Your task to perform on an android device: turn on the 12-hour format for clock Image 0: 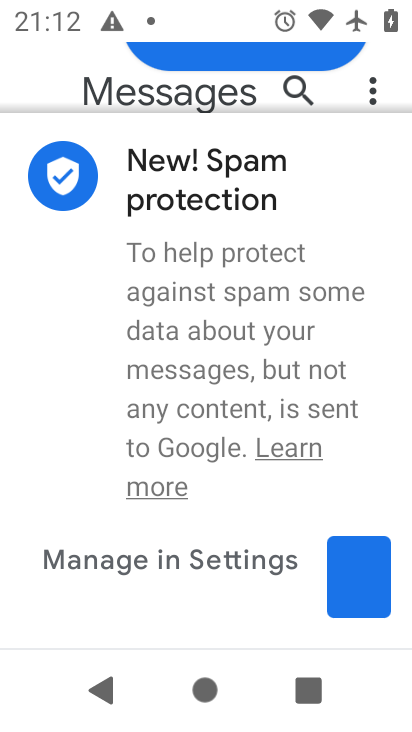
Step 0: press home button
Your task to perform on an android device: turn on the 12-hour format for clock Image 1: 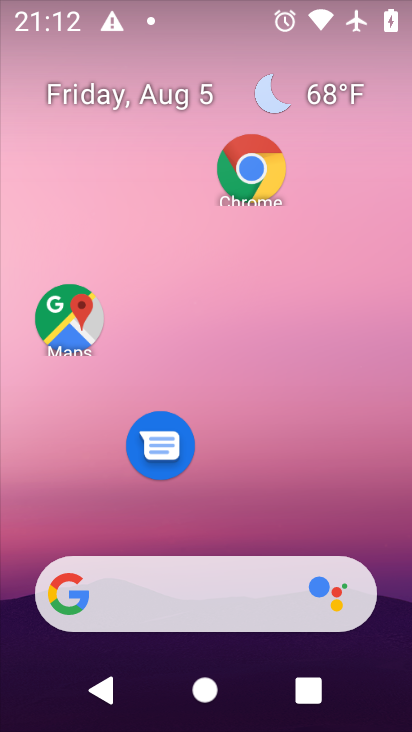
Step 1: drag from (221, 500) to (177, 90)
Your task to perform on an android device: turn on the 12-hour format for clock Image 2: 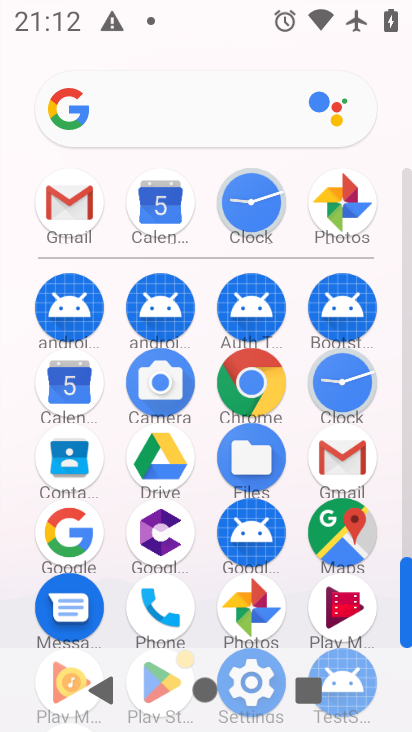
Step 2: click (268, 210)
Your task to perform on an android device: turn on the 12-hour format for clock Image 3: 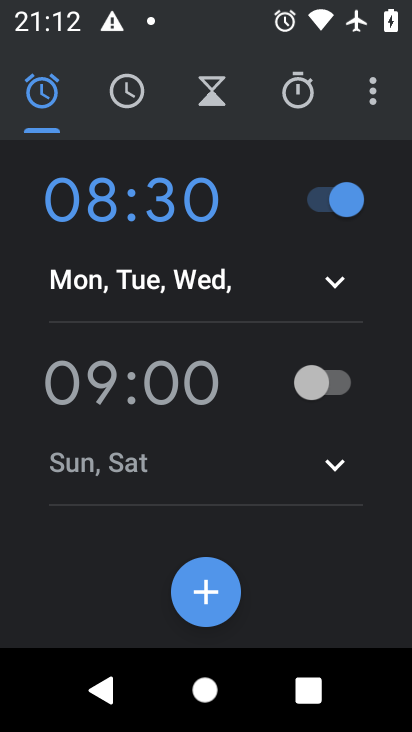
Step 3: click (368, 88)
Your task to perform on an android device: turn on the 12-hour format for clock Image 4: 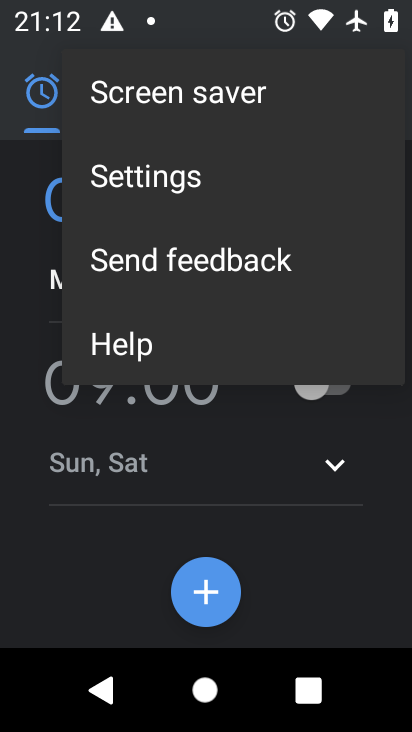
Step 4: click (114, 174)
Your task to perform on an android device: turn on the 12-hour format for clock Image 5: 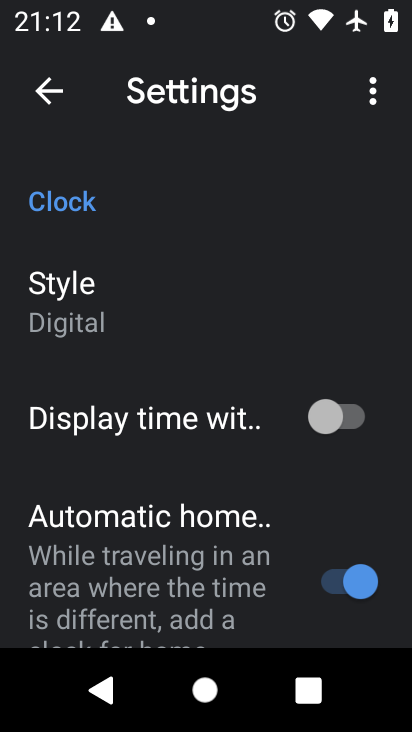
Step 5: drag from (180, 557) to (168, 173)
Your task to perform on an android device: turn on the 12-hour format for clock Image 6: 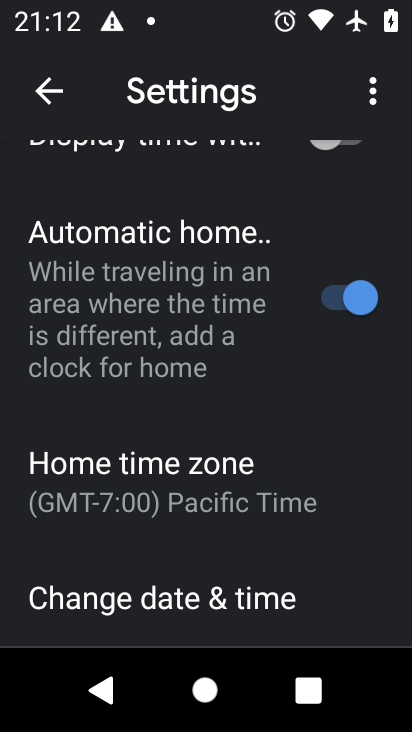
Step 6: click (180, 599)
Your task to perform on an android device: turn on the 12-hour format for clock Image 7: 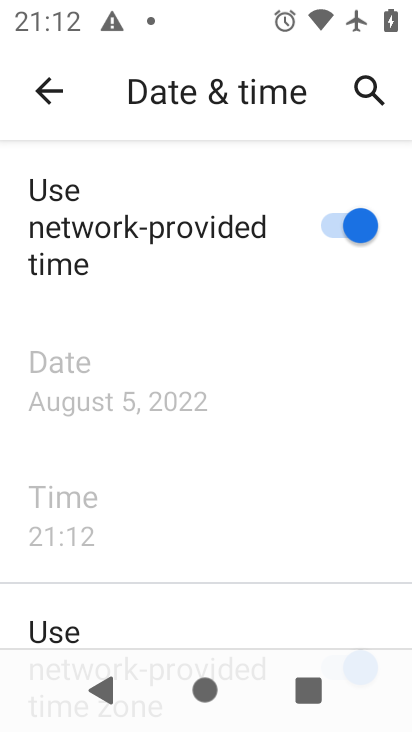
Step 7: drag from (201, 589) to (169, 170)
Your task to perform on an android device: turn on the 12-hour format for clock Image 8: 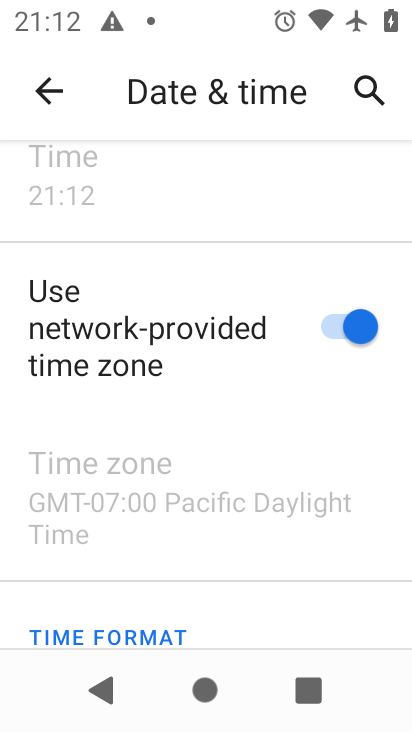
Step 8: drag from (207, 622) to (187, 192)
Your task to perform on an android device: turn on the 12-hour format for clock Image 9: 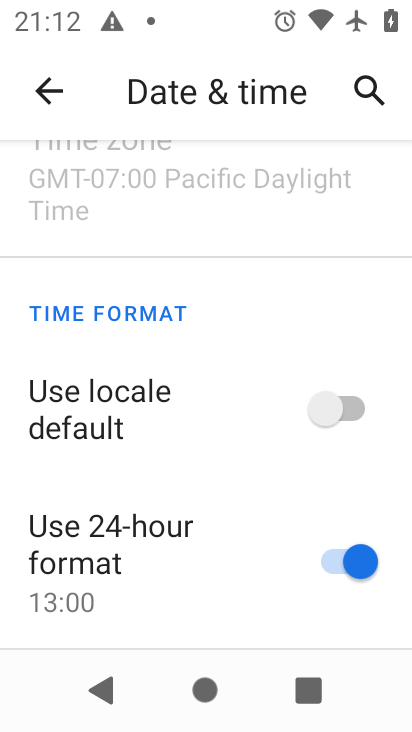
Step 9: click (346, 412)
Your task to perform on an android device: turn on the 12-hour format for clock Image 10: 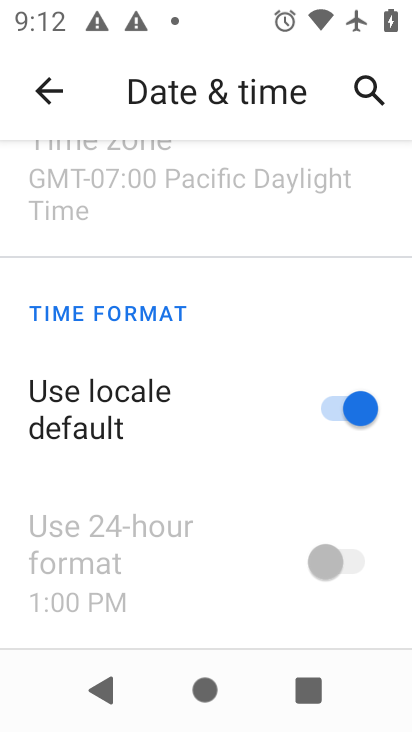
Step 10: task complete